Your task to perform on an android device: delete browsing data in the chrome app Image 0: 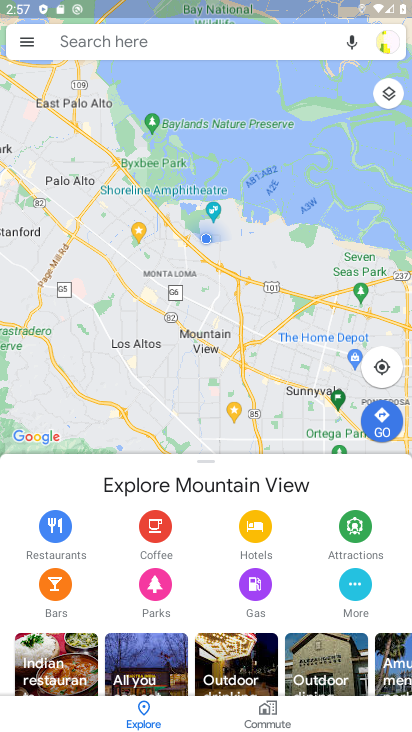
Step 0: press home button
Your task to perform on an android device: delete browsing data in the chrome app Image 1: 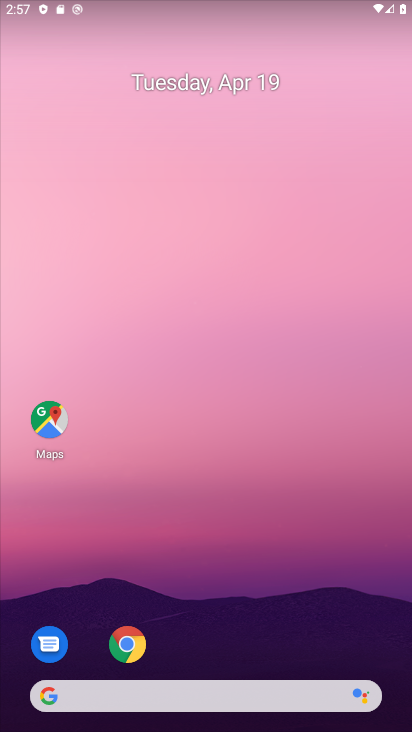
Step 1: click (125, 642)
Your task to perform on an android device: delete browsing data in the chrome app Image 2: 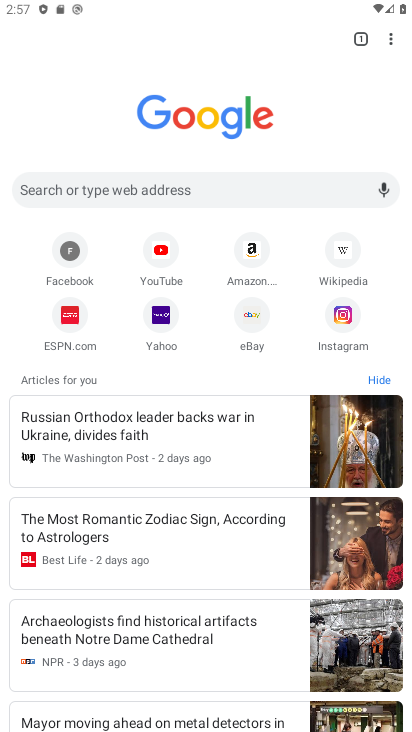
Step 2: click (390, 39)
Your task to perform on an android device: delete browsing data in the chrome app Image 3: 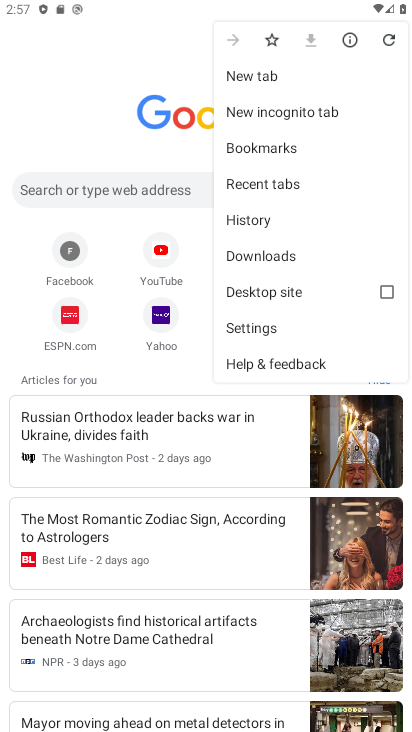
Step 3: click (257, 223)
Your task to perform on an android device: delete browsing data in the chrome app Image 4: 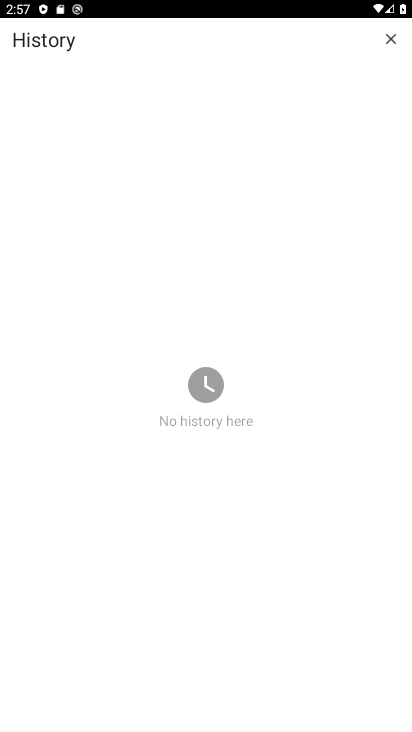
Step 4: task complete